Your task to perform on an android device: turn on data saver in the chrome app Image 0: 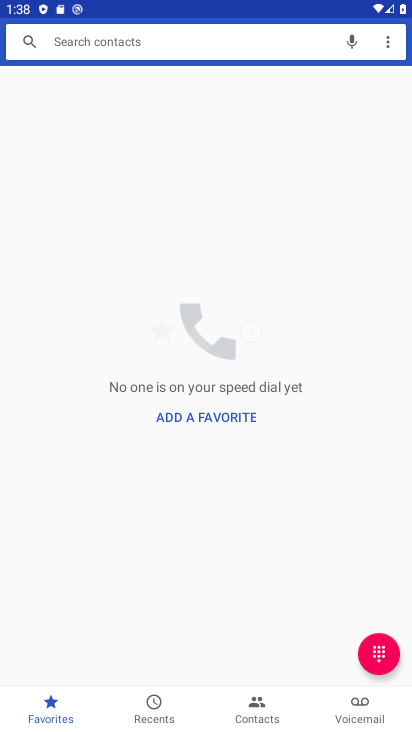
Step 0: press home button
Your task to perform on an android device: turn on data saver in the chrome app Image 1: 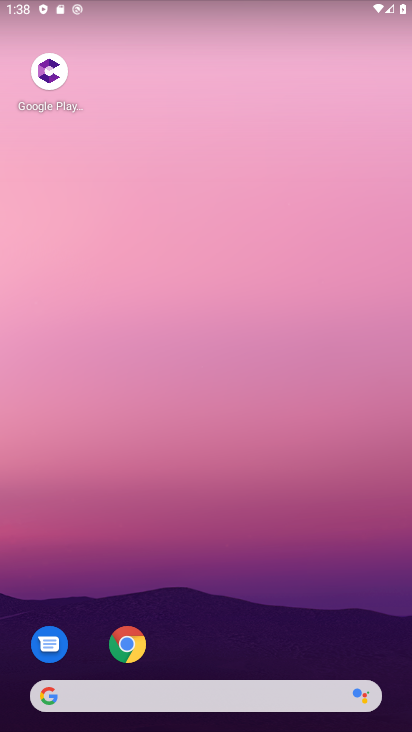
Step 1: click (119, 658)
Your task to perform on an android device: turn on data saver in the chrome app Image 2: 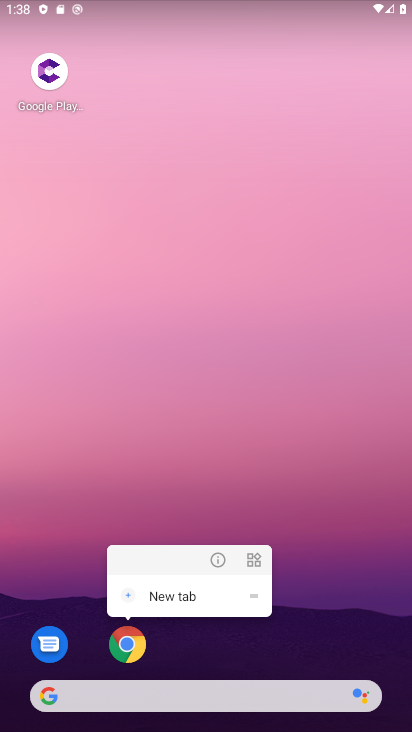
Step 2: click (124, 657)
Your task to perform on an android device: turn on data saver in the chrome app Image 3: 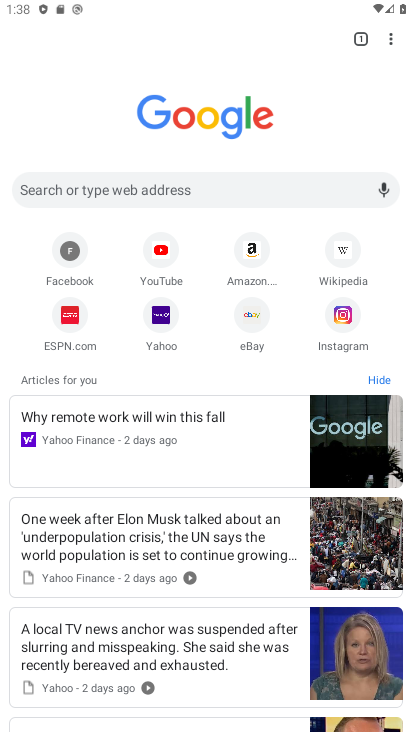
Step 3: drag from (385, 38) to (284, 332)
Your task to perform on an android device: turn on data saver in the chrome app Image 4: 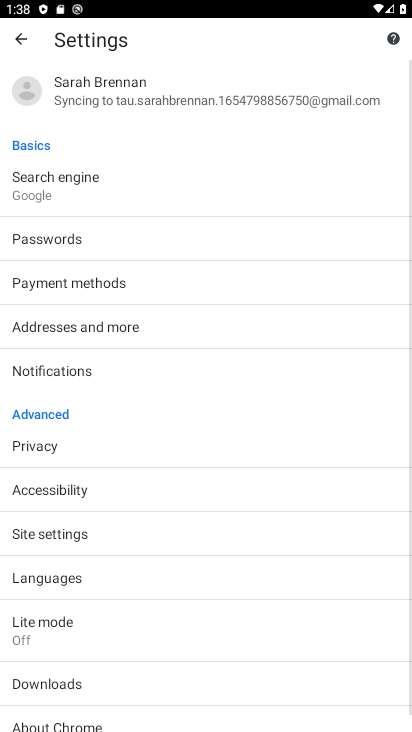
Step 4: drag from (158, 685) to (216, 400)
Your task to perform on an android device: turn on data saver in the chrome app Image 5: 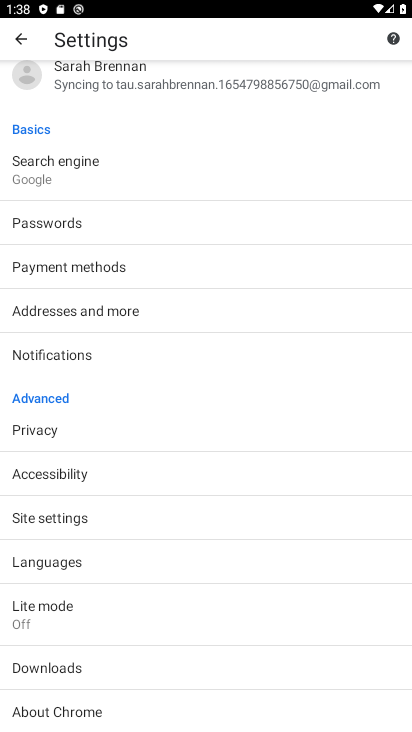
Step 5: click (72, 612)
Your task to perform on an android device: turn on data saver in the chrome app Image 6: 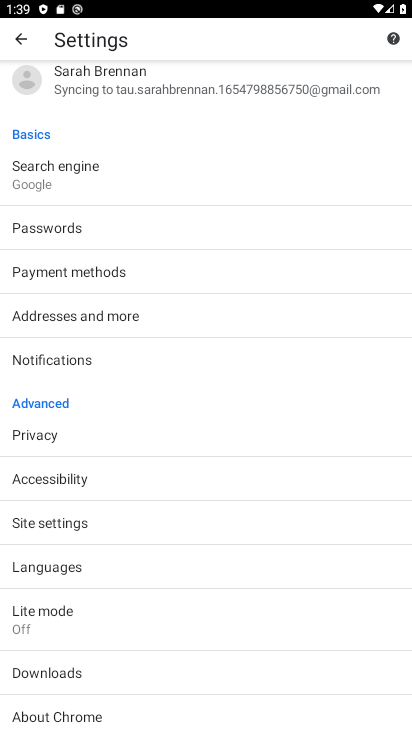
Step 6: click (141, 625)
Your task to perform on an android device: turn on data saver in the chrome app Image 7: 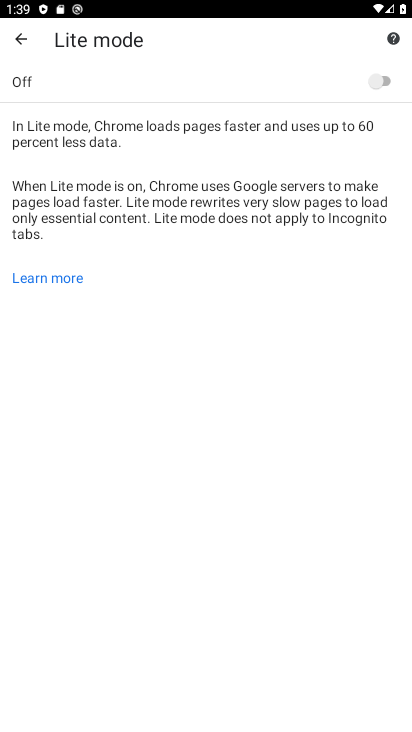
Step 7: click (397, 80)
Your task to perform on an android device: turn on data saver in the chrome app Image 8: 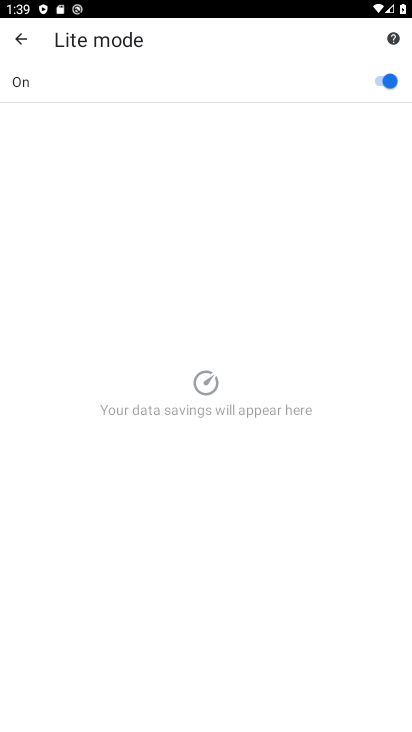
Step 8: task complete